Your task to perform on an android device: turn smart compose on in the gmail app Image 0: 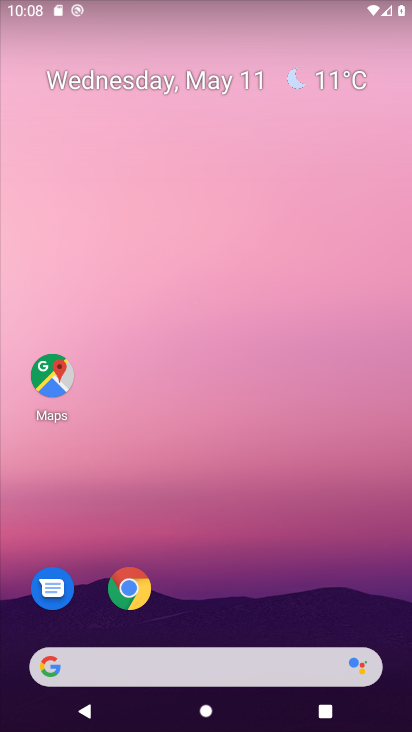
Step 0: drag from (226, 577) to (296, 201)
Your task to perform on an android device: turn smart compose on in the gmail app Image 1: 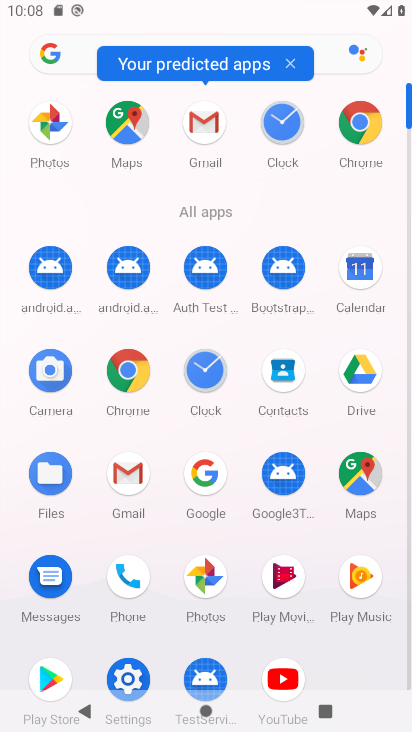
Step 1: click (200, 122)
Your task to perform on an android device: turn smart compose on in the gmail app Image 2: 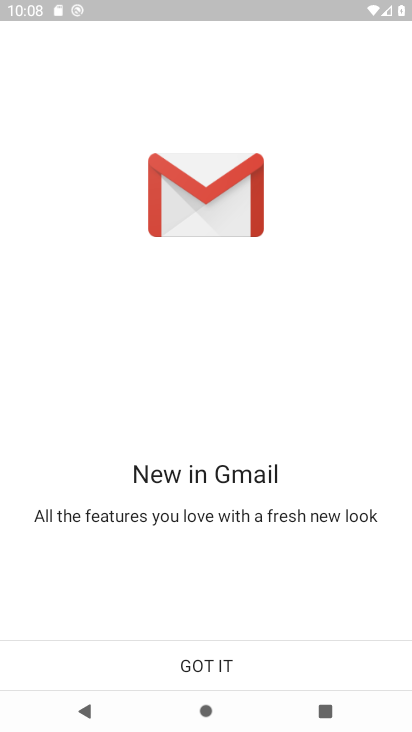
Step 2: click (220, 658)
Your task to perform on an android device: turn smart compose on in the gmail app Image 3: 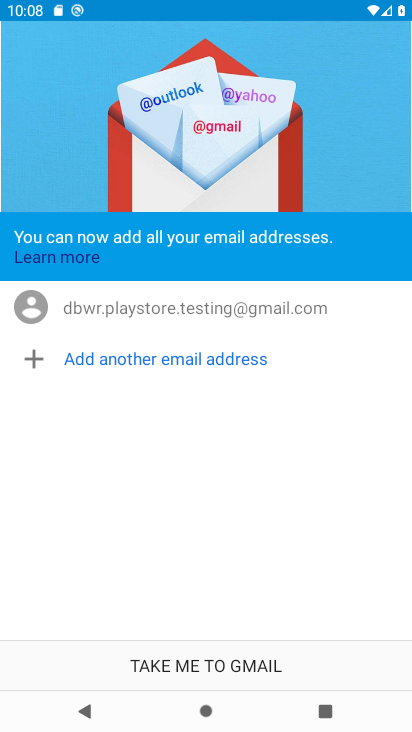
Step 3: click (220, 674)
Your task to perform on an android device: turn smart compose on in the gmail app Image 4: 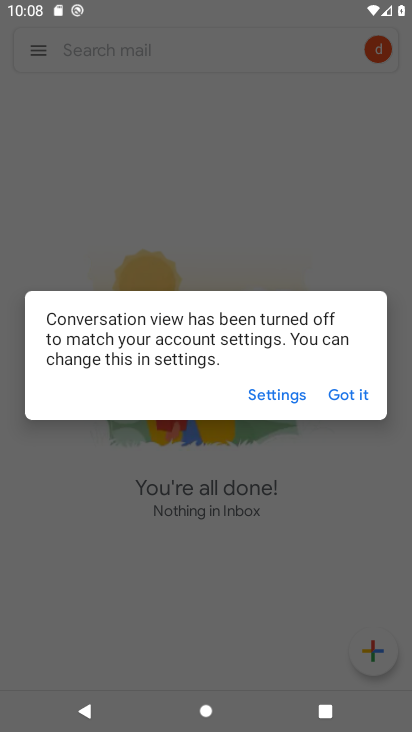
Step 4: click (332, 397)
Your task to perform on an android device: turn smart compose on in the gmail app Image 5: 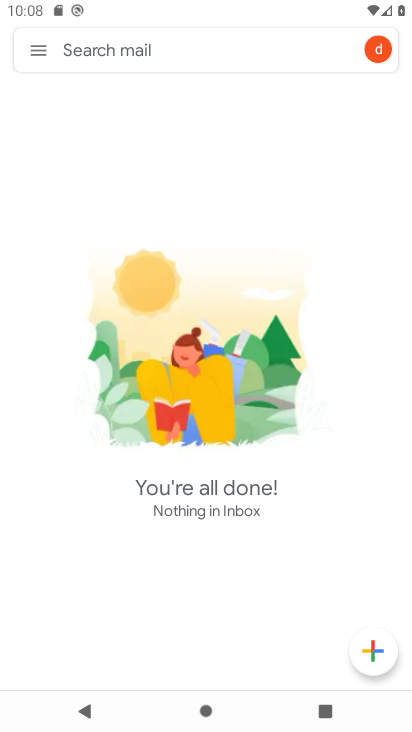
Step 5: click (44, 65)
Your task to perform on an android device: turn smart compose on in the gmail app Image 6: 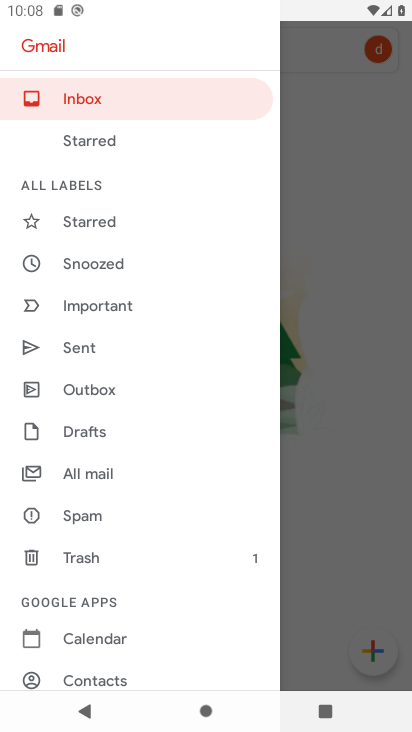
Step 6: drag from (125, 562) to (159, 175)
Your task to perform on an android device: turn smart compose on in the gmail app Image 7: 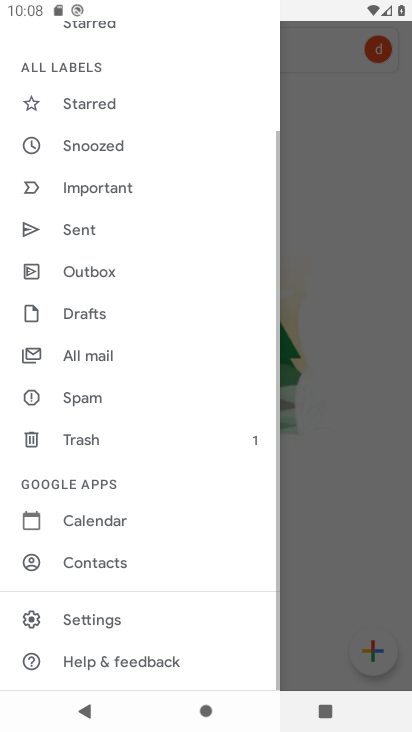
Step 7: click (124, 623)
Your task to perform on an android device: turn smart compose on in the gmail app Image 8: 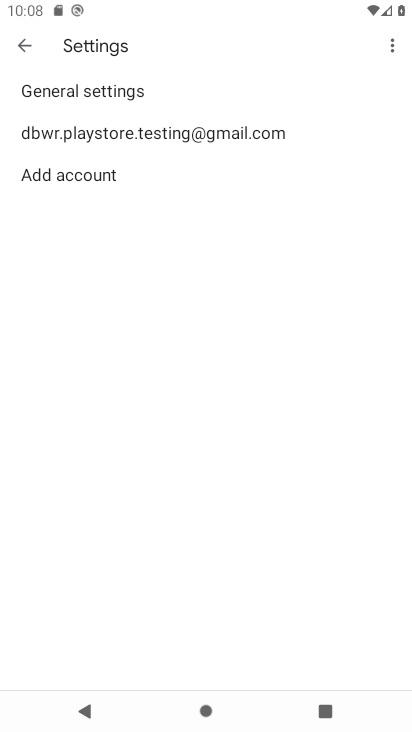
Step 8: click (61, 144)
Your task to perform on an android device: turn smart compose on in the gmail app Image 9: 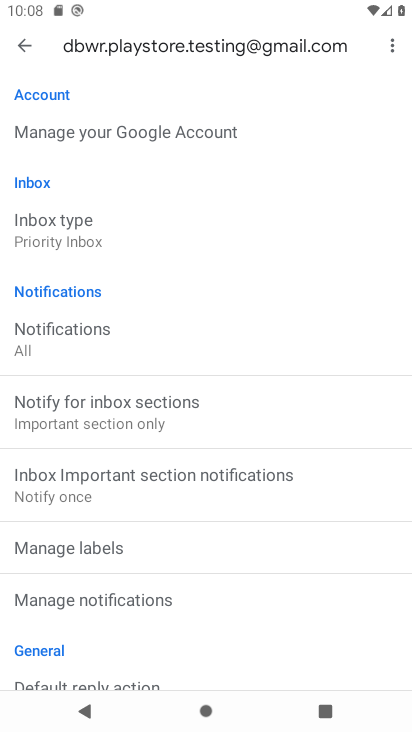
Step 9: task complete